Your task to perform on an android device: Check the news Image 0: 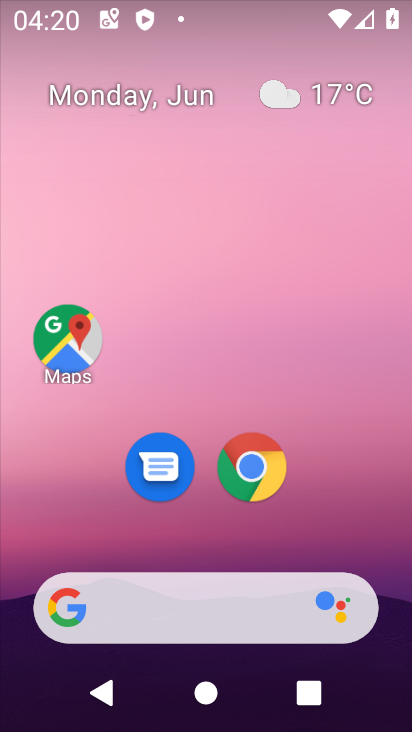
Step 0: click (202, 614)
Your task to perform on an android device: Check the news Image 1: 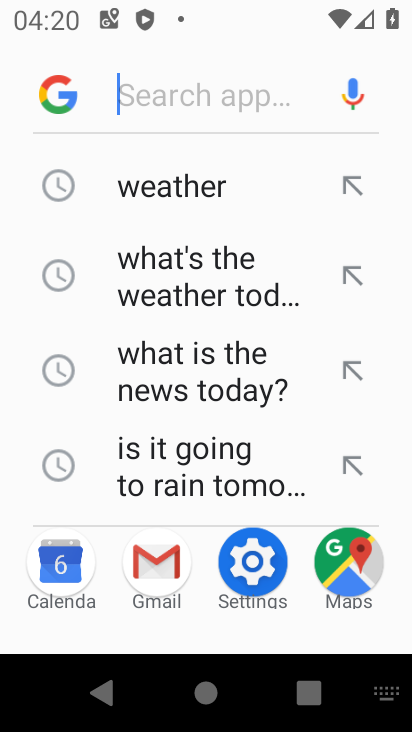
Step 1: type "news"
Your task to perform on an android device: Check the news Image 2: 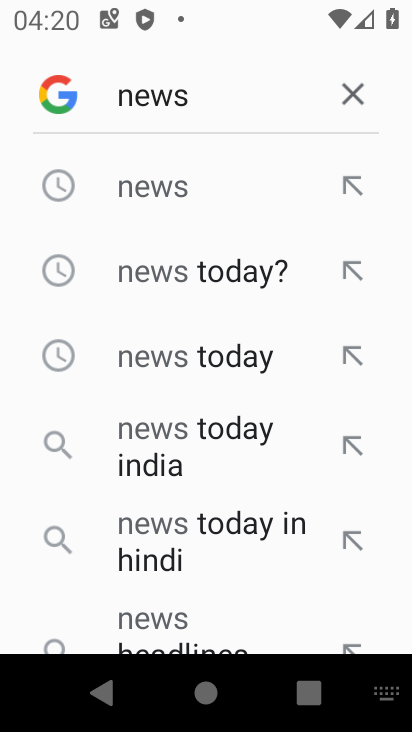
Step 2: click (194, 199)
Your task to perform on an android device: Check the news Image 3: 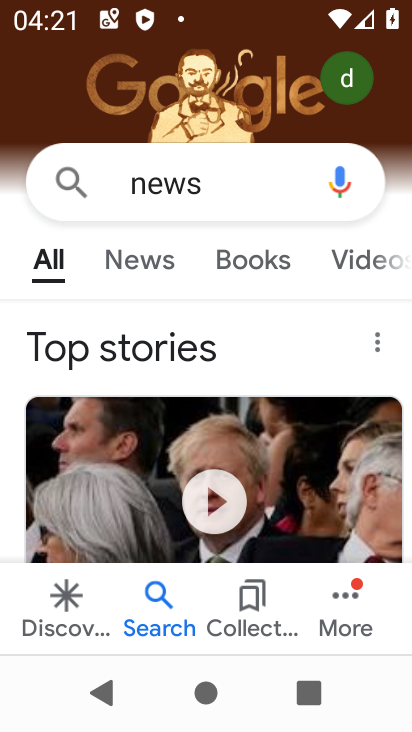
Step 3: task complete